Your task to perform on an android device: turn off javascript in the chrome app Image 0: 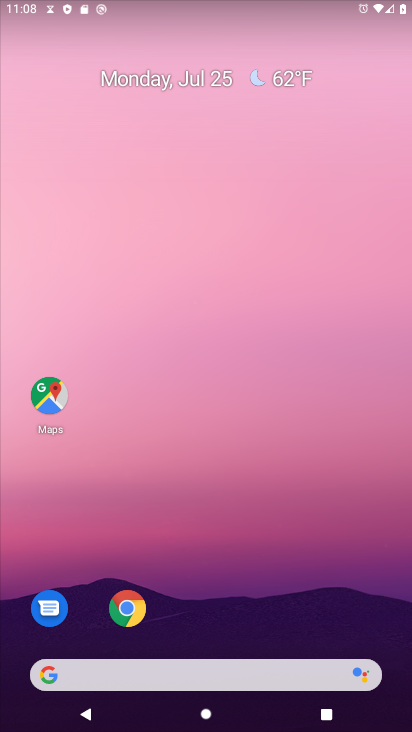
Step 0: click (124, 608)
Your task to perform on an android device: turn off javascript in the chrome app Image 1: 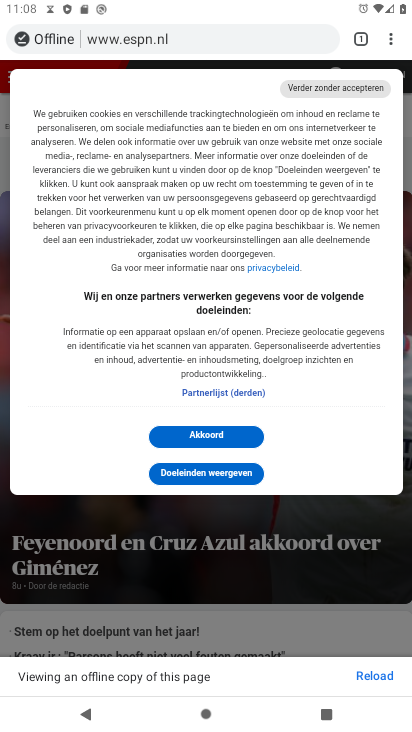
Step 1: click (392, 40)
Your task to perform on an android device: turn off javascript in the chrome app Image 2: 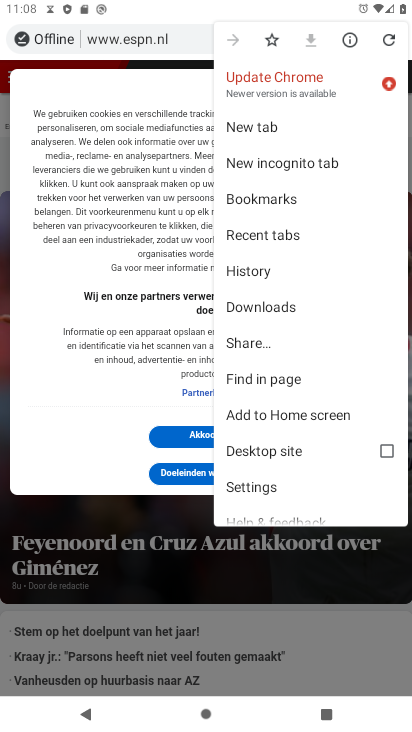
Step 2: click (250, 489)
Your task to perform on an android device: turn off javascript in the chrome app Image 3: 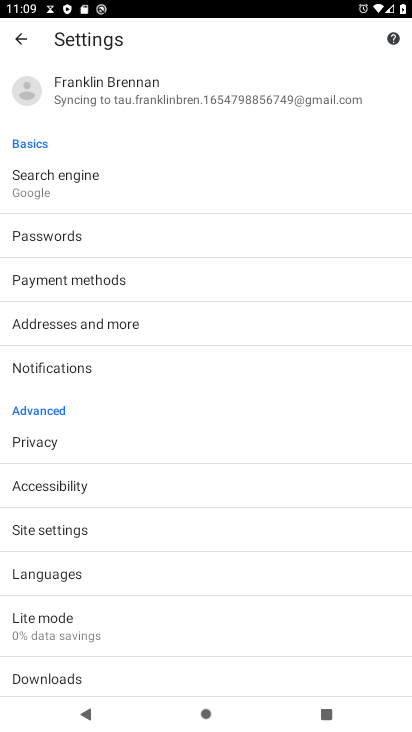
Step 3: click (63, 526)
Your task to perform on an android device: turn off javascript in the chrome app Image 4: 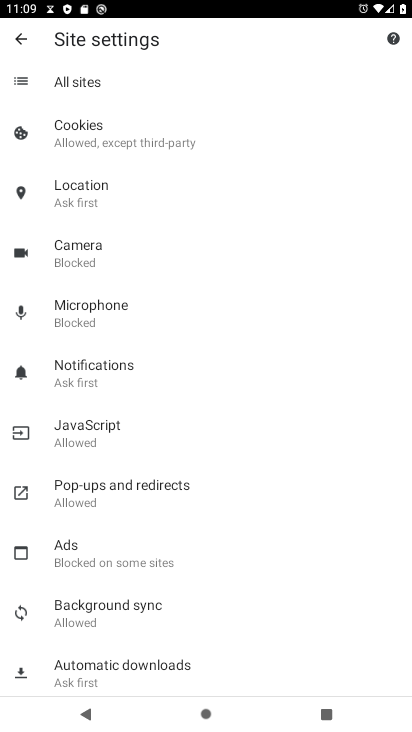
Step 4: click (76, 429)
Your task to perform on an android device: turn off javascript in the chrome app Image 5: 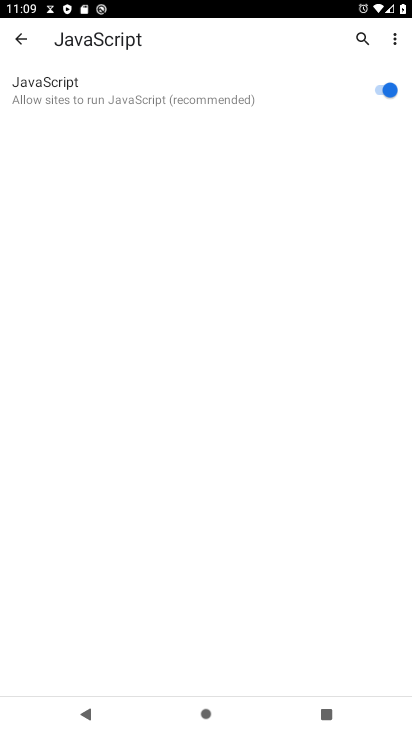
Step 5: click (382, 90)
Your task to perform on an android device: turn off javascript in the chrome app Image 6: 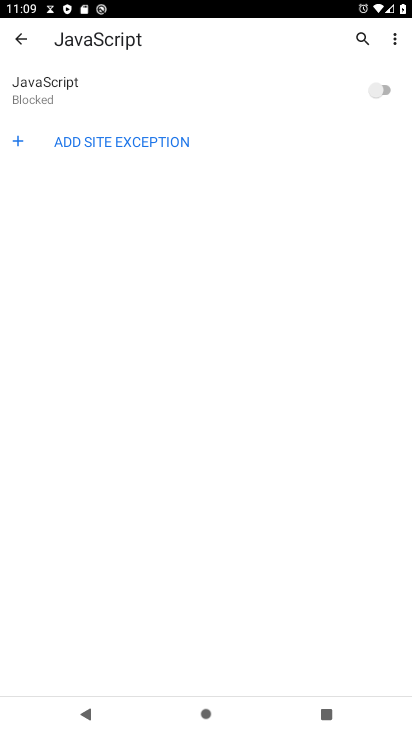
Step 6: task complete